Your task to perform on an android device: visit the assistant section in the google photos Image 0: 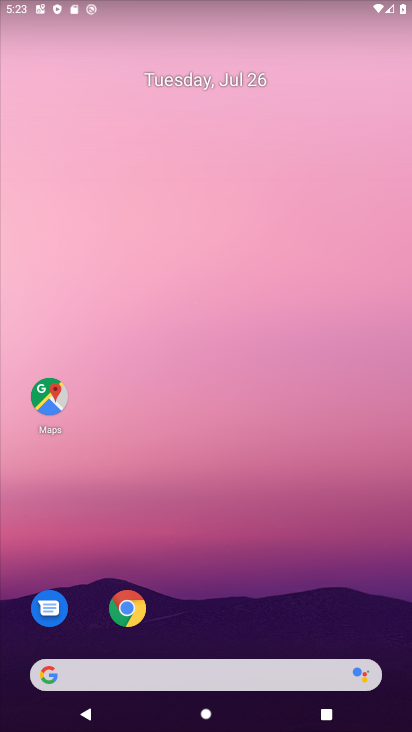
Step 0: press home button
Your task to perform on an android device: visit the assistant section in the google photos Image 1: 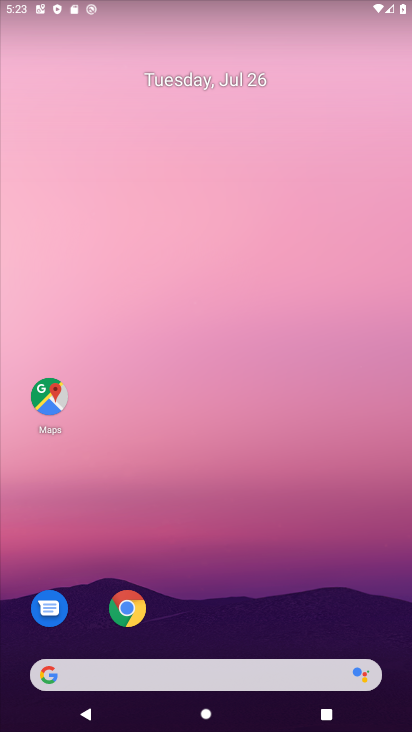
Step 1: drag from (228, 617) to (242, 72)
Your task to perform on an android device: visit the assistant section in the google photos Image 2: 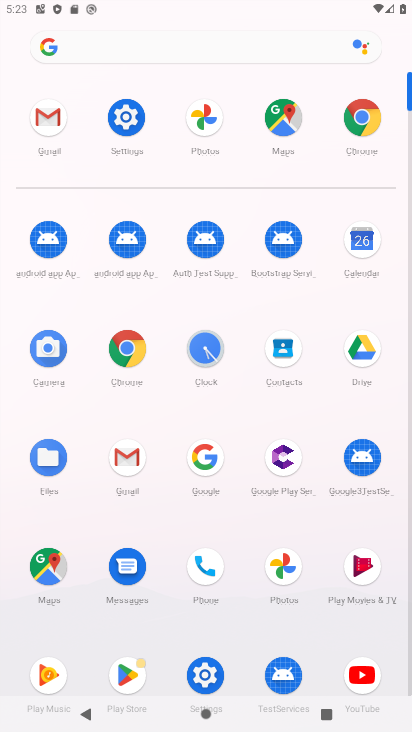
Step 2: click (288, 573)
Your task to perform on an android device: visit the assistant section in the google photos Image 3: 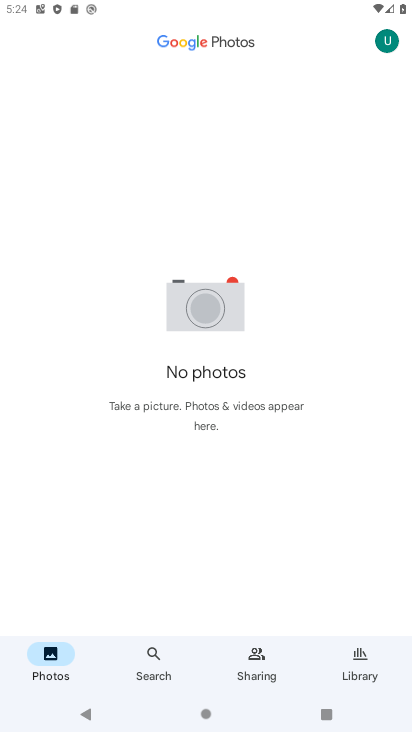
Step 3: task complete